Your task to perform on an android device: Open Android settings Image 0: 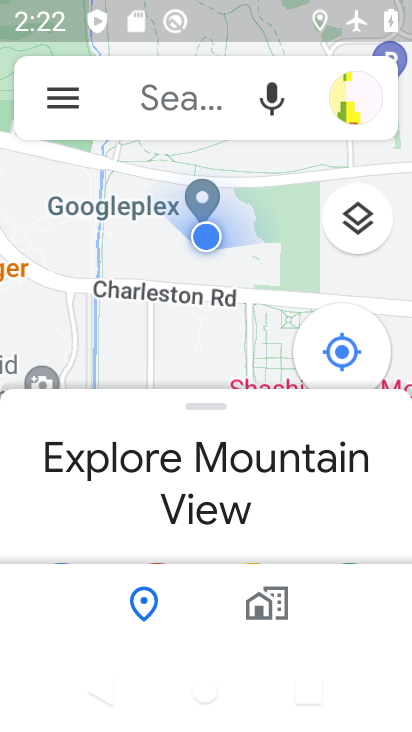
Step 0: press home button
Your task to perform on an android device: Open Android settings Image 1: 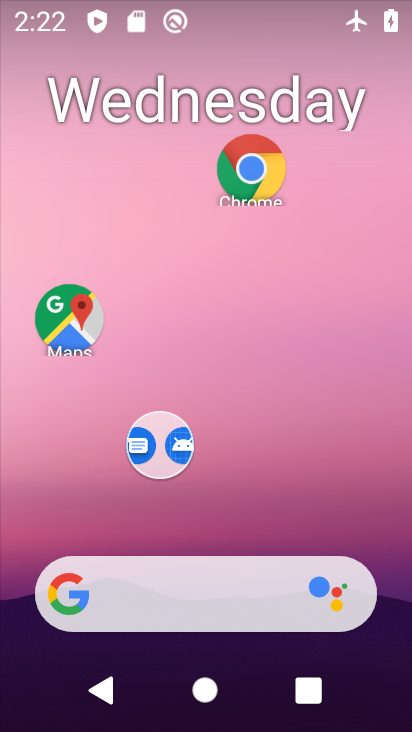
Step 1: drag from (196, 545) to (200, 36)
Your task to perform on an android device: Open Android settings Image 2: 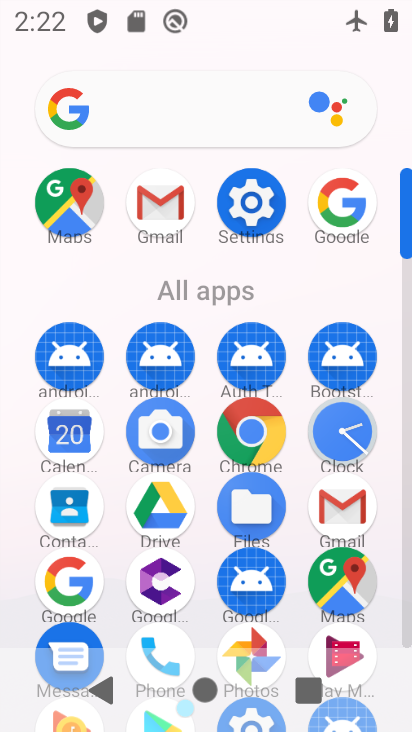
Step 2: click (247, 210)
Your task to perform on an android device: Open Android settings Image 3: 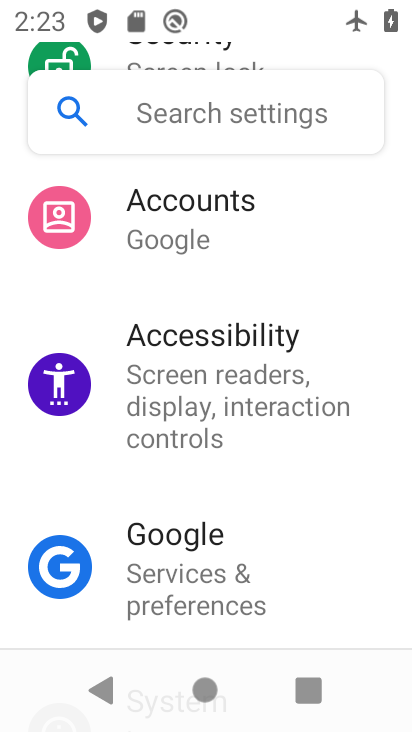
Step 3: task complete